Your task to perform on an android device: Open sound settings Image 0: 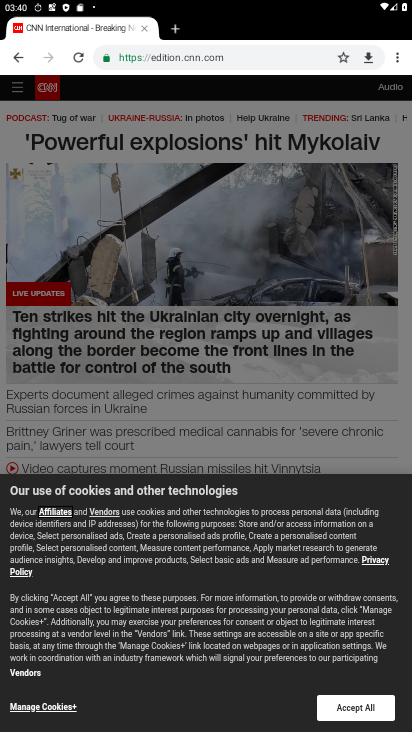
Step 0: press home button
Your task to perform on an android device: Open sound settings Image 1: 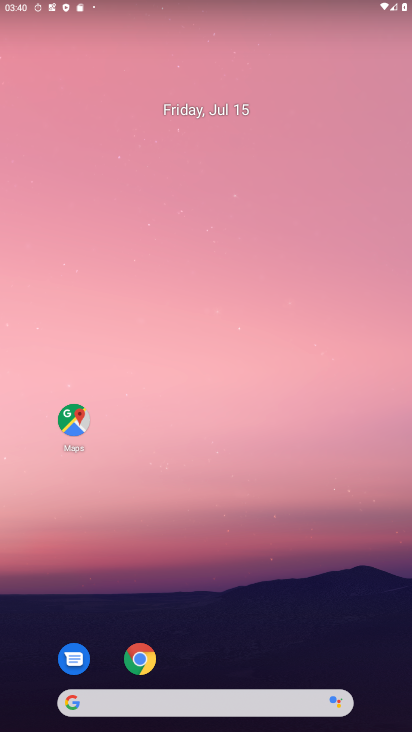
Step 1: drag from (240, 635) to (276, 184)
Your task to perform on an android device: Open sound settings Image 2: 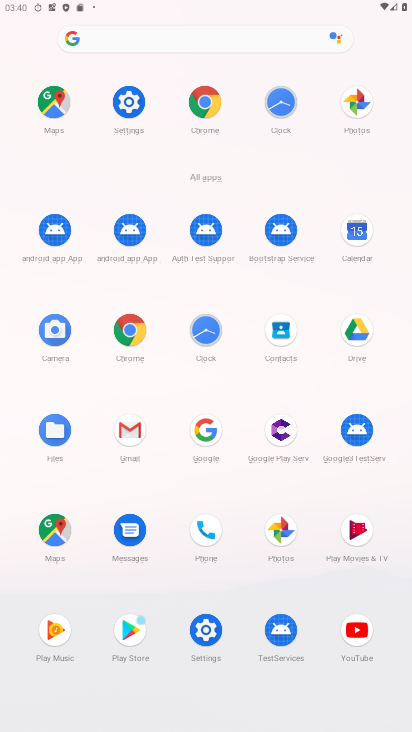
Step 2: click (126, 107)
Your task to perform on an android device: Open sound settings Image 3: 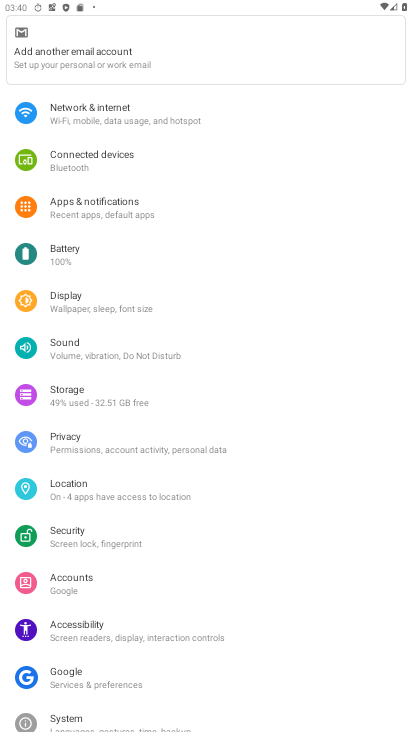
Step 3: click (84, 347)
Your task to perform on an android device: Open sound settings Image 4: 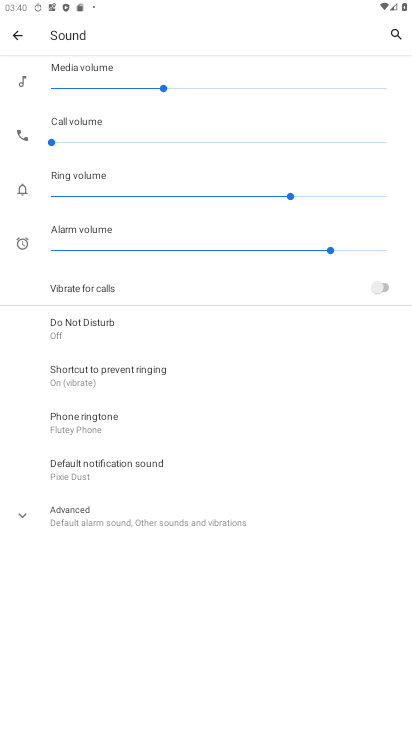
Step 4: task complete